Your task to perform on an android device: toggle improve location accuracy Image 0: 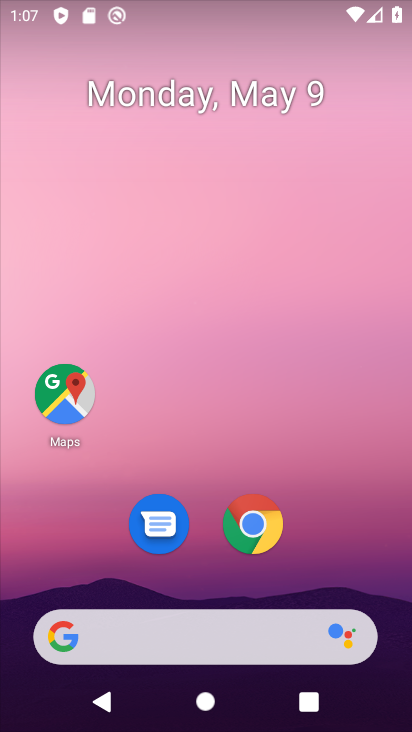
Step 0: drag from (329, 531) to (346, 76)
Your task to perform on an android device: toggle improve location accuracy Image 1: 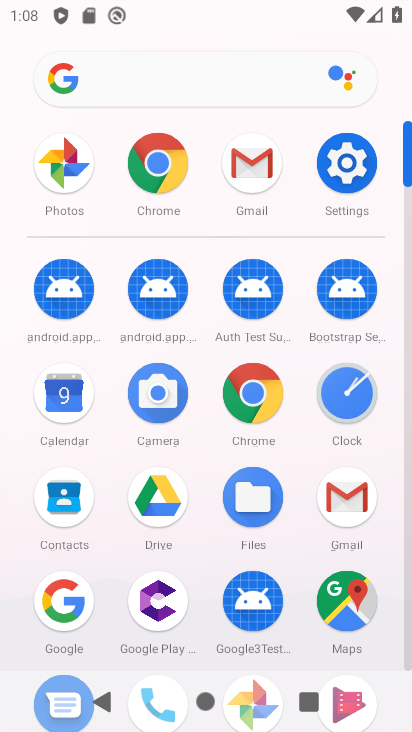
Step 1: click (350, 163)
Your task to perform on an android device: toggle improve location accuracy Image 2: 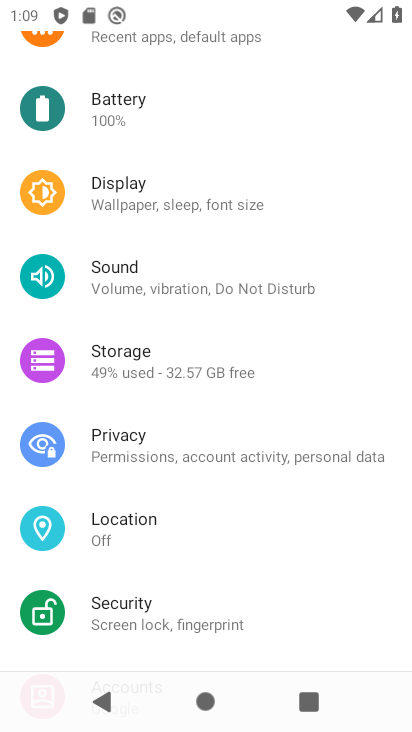
Step 2: click (158, 525)
Your task to perform on an android device: toggle improve location accuracy Image 3: 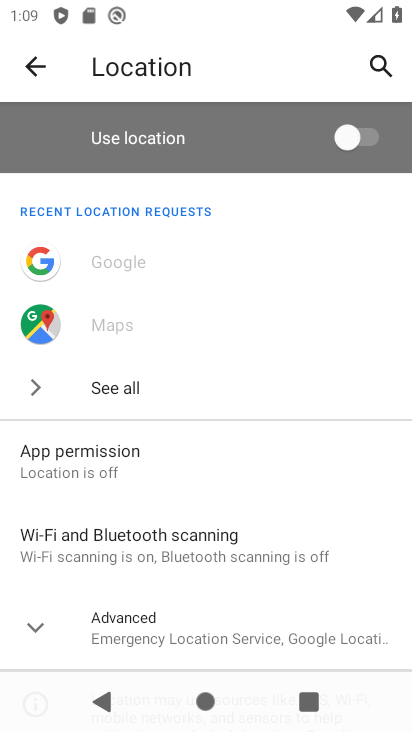
Step 3: click (31, 624)
Your task to perform on an android device: toggle improve location accuracy Image 4: 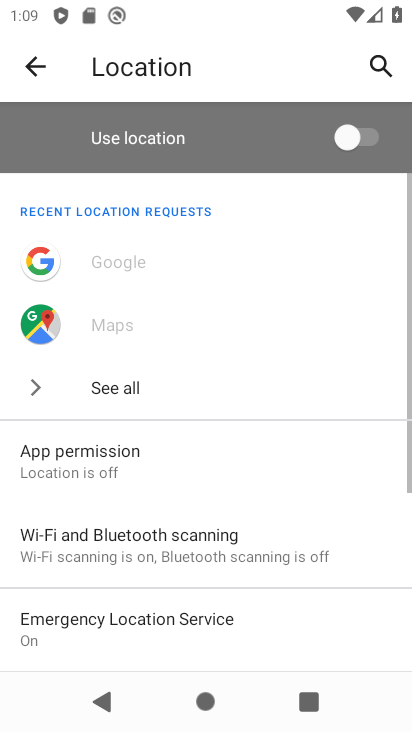
Step 4: drag from (235, 607) to (290, 215)
Your task to perform on an android device: toggle improve location accuracy Image 5: 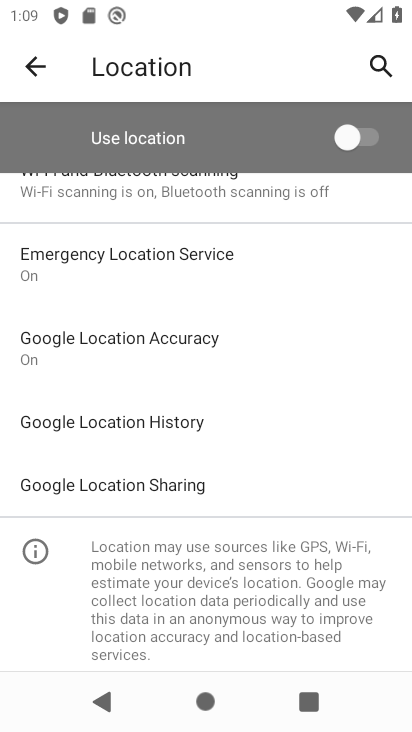
Step 5: click (217, 332)
Your task to perform on an android device: toggle improve location accuracy Image 6: 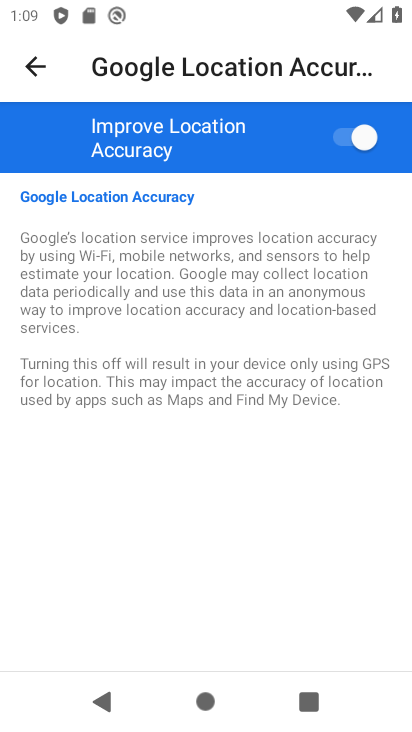
Step 6: click (339, 140)
Your task to perform on an android device: toggle improve location accuracy Image 7: 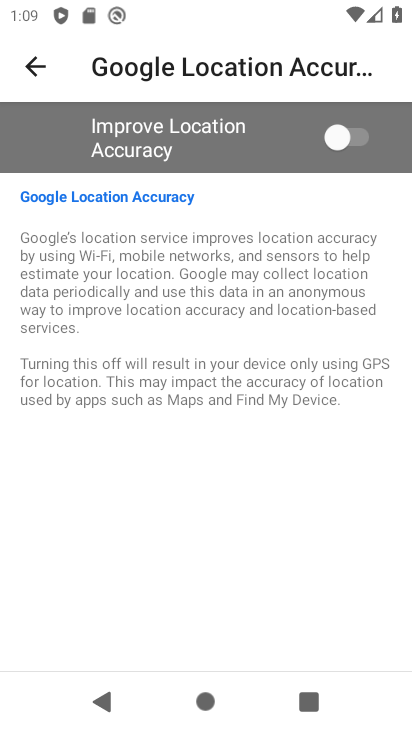
Step 7: task complete